Your task to perform on an android device: add a contact Image 0: 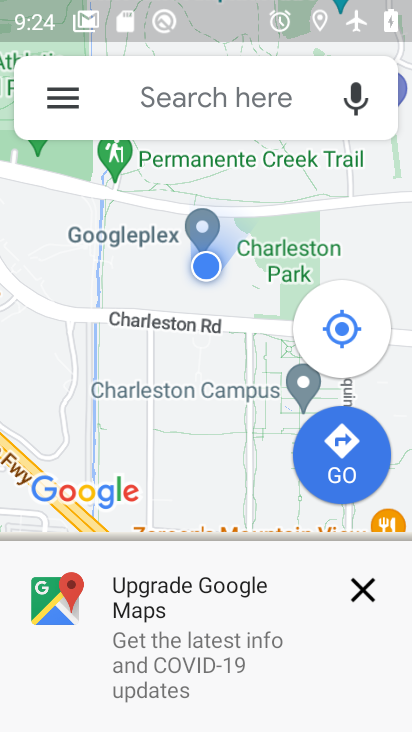
Step 0: press home button
Your task to perform on an android device: add a contact Image 1: 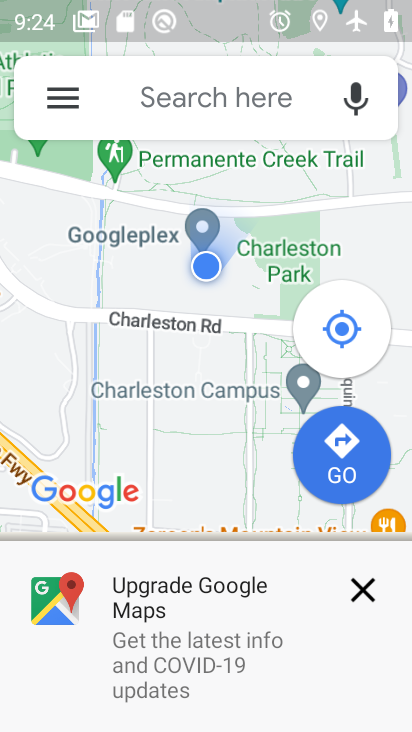
Step 1: press home button
Your task to perform on an android device: add a contact Image 2: 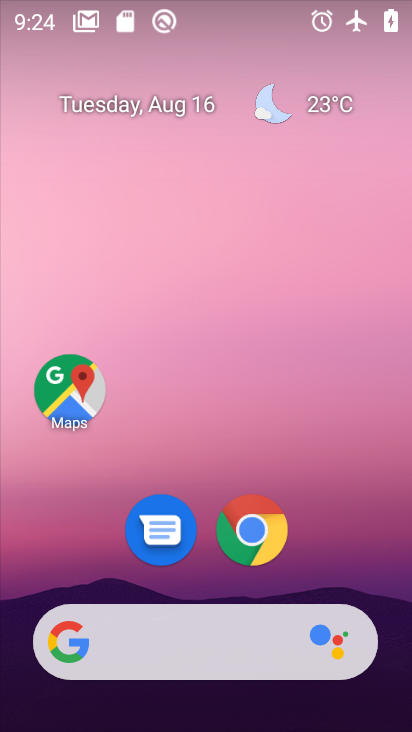
Step 2: drag from (314, 515) to (307, 116)
Your task to perform on an android device: add a contact Image 3: 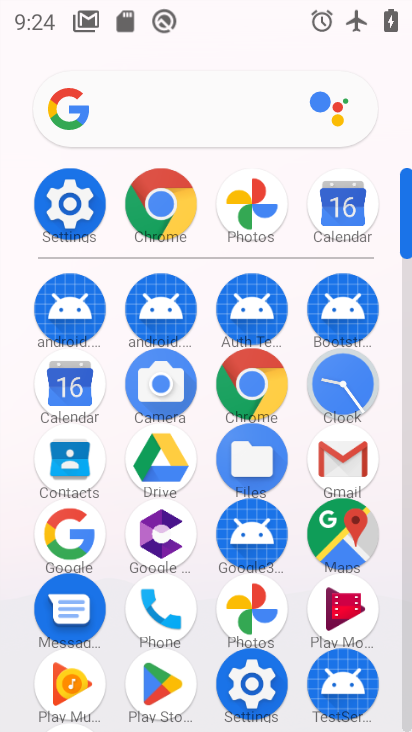
Step 3: click (81, 468)
Your task to perform on an android device: add a contact Image 4: 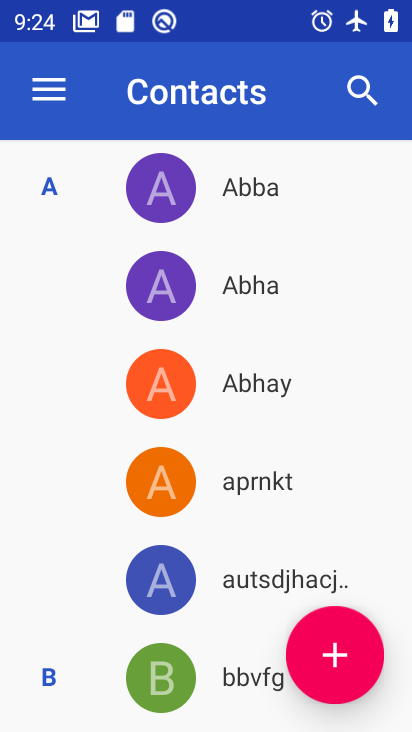
Step 4: click (316, 663)
Your task to perform on an android device: add a contact Image 5: 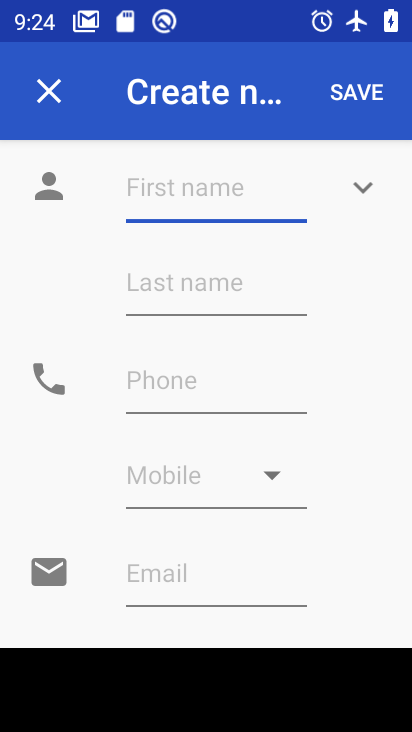
Step 5: type "archna"
Your task to perform on an android device: add a contact Image 6: 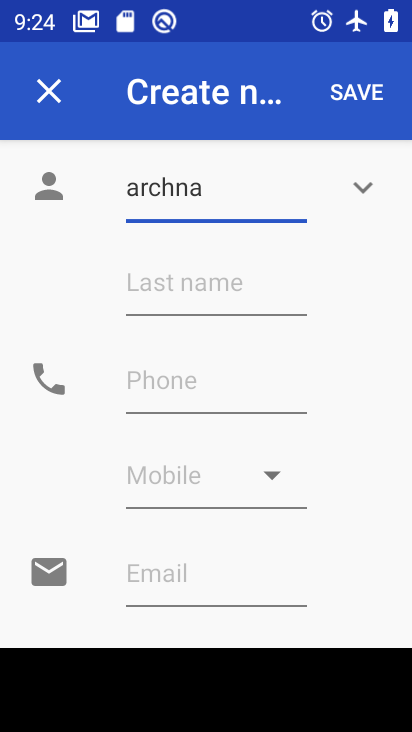
Step 6: click (357, 95)
Your task to perform on an android device: add a contact Image 7: 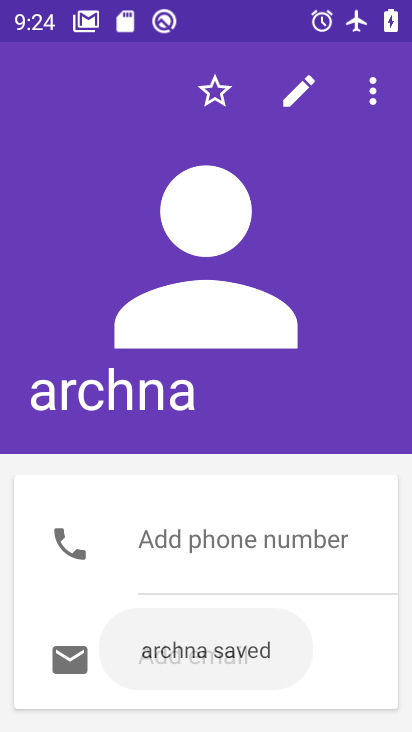
Step 7: task complete